Your task to perform on an android device: toggle improve location accuracy Image 0: 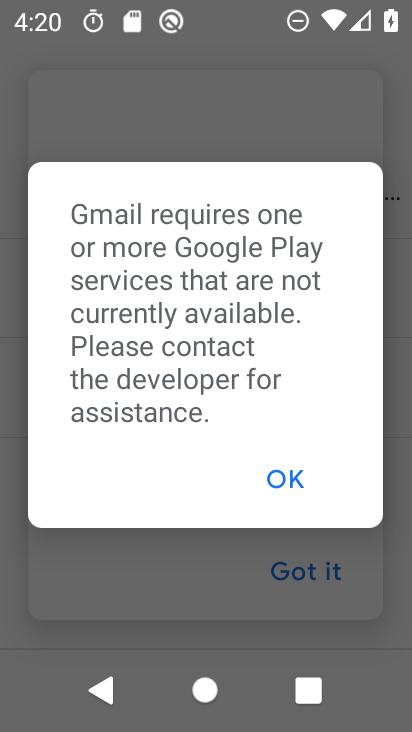
Step 0: press home button
Your task to perform on an android device: toggle improve location accuracy Image 1: 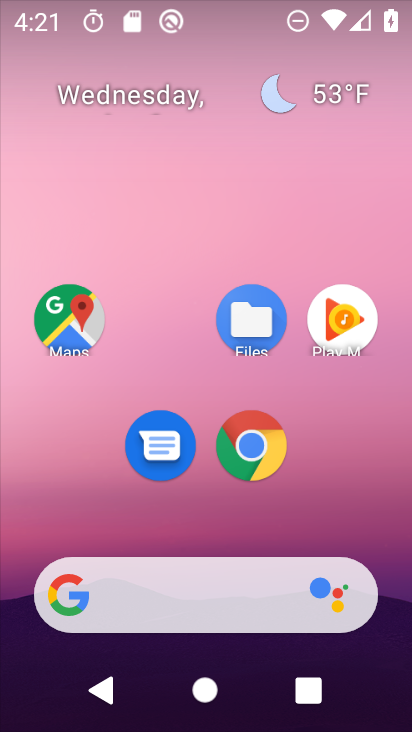
Step 1: drag from (389, 666) to (335, 256)
Your task to perform on an android device: toggle improve location accuracy Image 2: 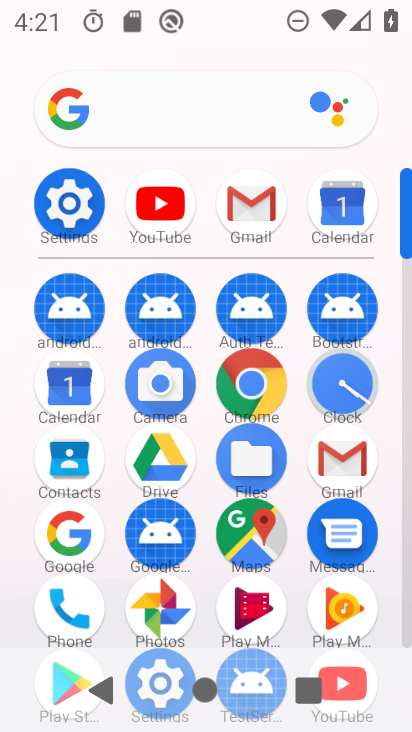
Step 2: click (68, 214)
Your task to perform on an android device: toggle improve location accuracy Image 3: 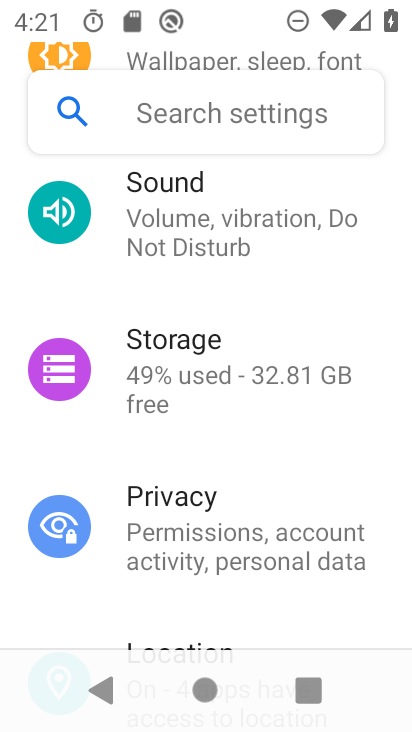
Step 3: click (240, 630)
Your task to perform on an android device: toggle improve location accuracy Image 4: 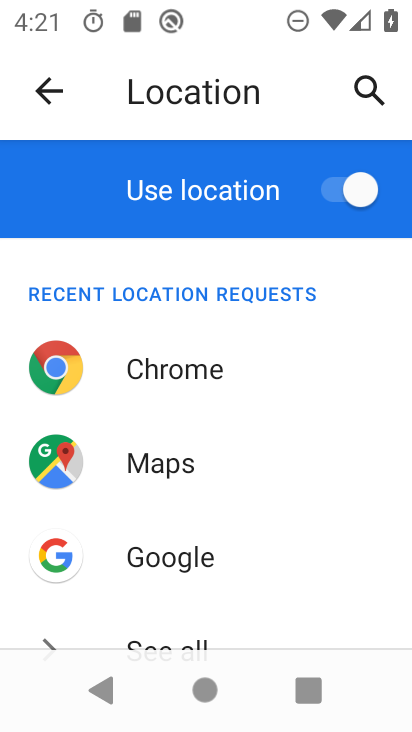
Step 4: drag from (287, 570) to (309, 209)
Your task to perform on an android device: toggle improve location accuracy Image 5: 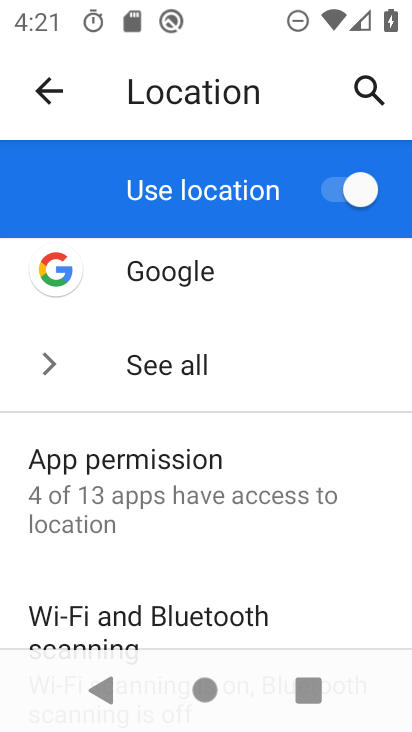
Step 5: drag from (268, 587) to (286, 127)
Your task to perform on an android device: toggle improve location accuracy Image 6: 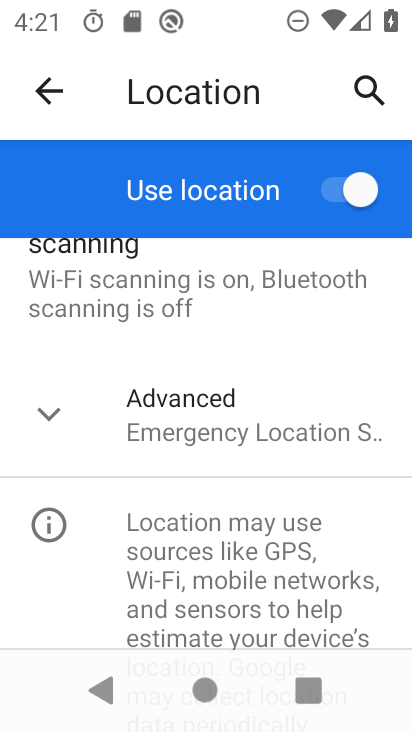
Step 6: click (210, 407)
Your task to perform on an android device: toggle improve location accuracy Image 7: 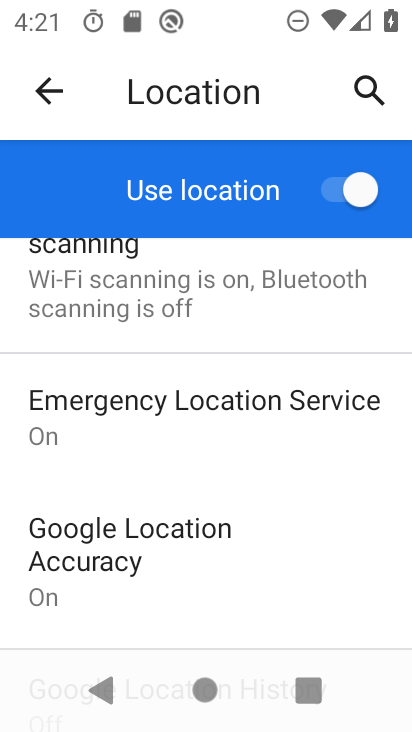
Step 7: click (243, 564)
Your task to perform on an android device: toggle improve location accuracy Image 8: 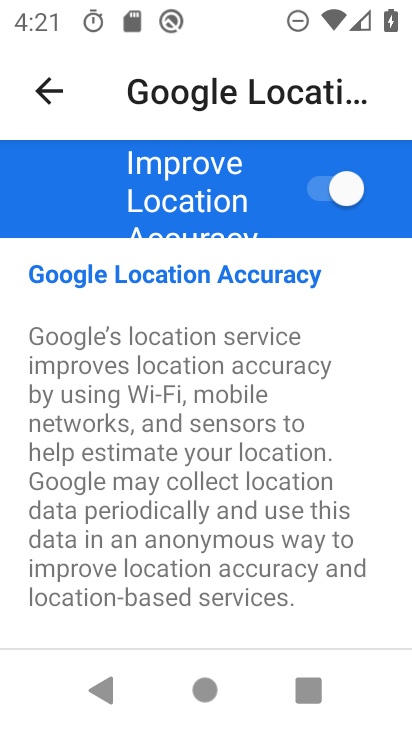
Step 8: click (334, 215)
Your task to perform on an android device: toggle improve location accuracy Image 9: 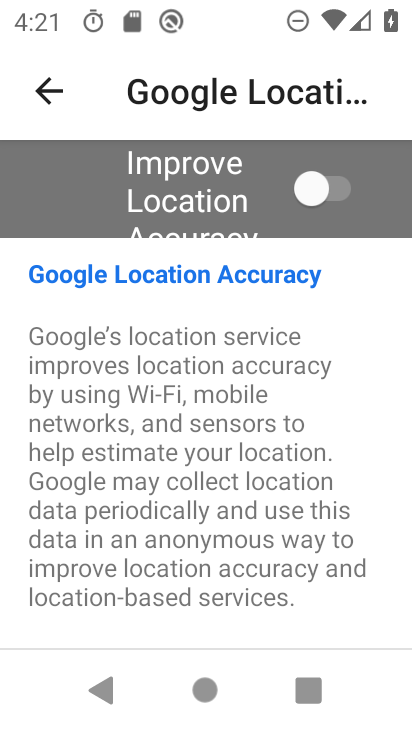
Step 9: task complete